Your task to perform on an android device: open app "DuckDuckGo Privacy Browser" (install if not already installed) and enter user name: "cleaving@outlook.com" and password: "freighters" Image 0: 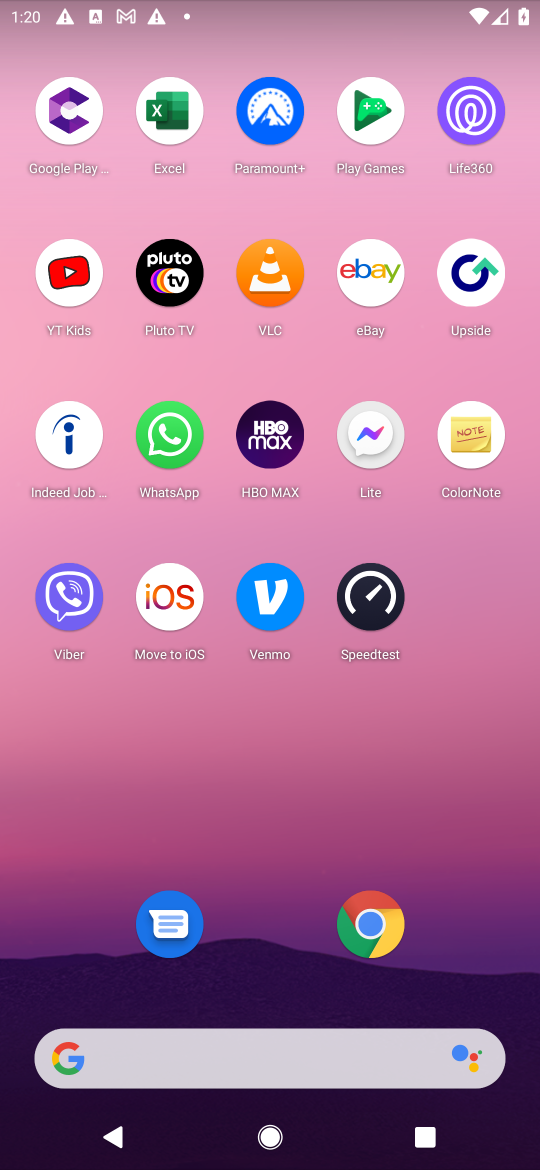
Step 0: press home button
Your task to perform on an android device: open app "DuckDuckGo Privacy Browser" (install if not already installed) and enter user name: "cleaving@outlook.com" and password: "freighters" Image 1: 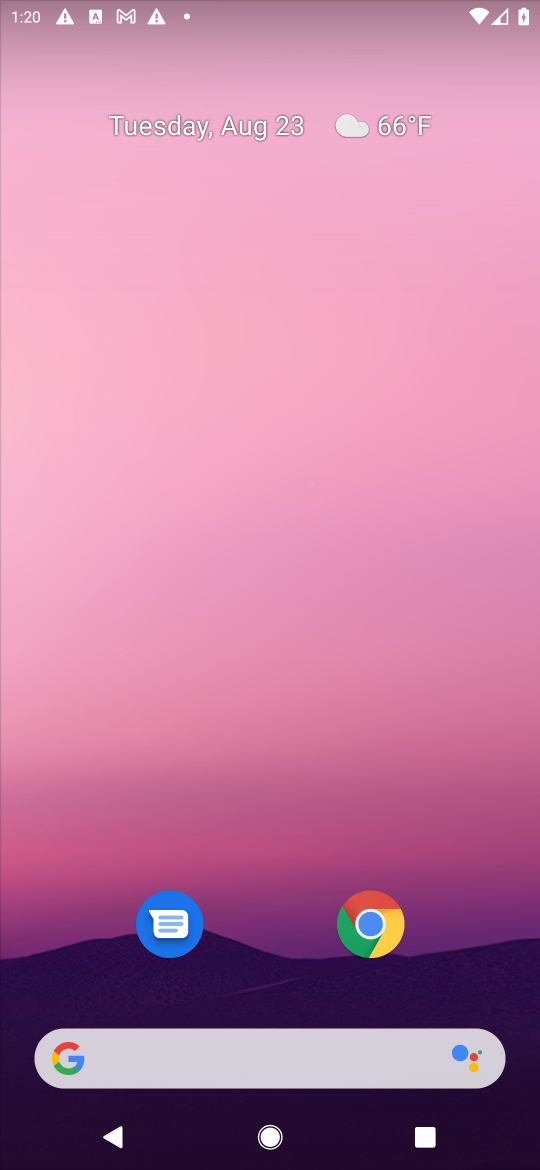
Step 1: drag from (453, 736) to (498, 158)
Your task to perform on an android device: open app "DuckDuckGo Privacy Browser" (install if not already installed) and enter user name: "cleaving@outlook.com" and password: "freighters" Image 2: 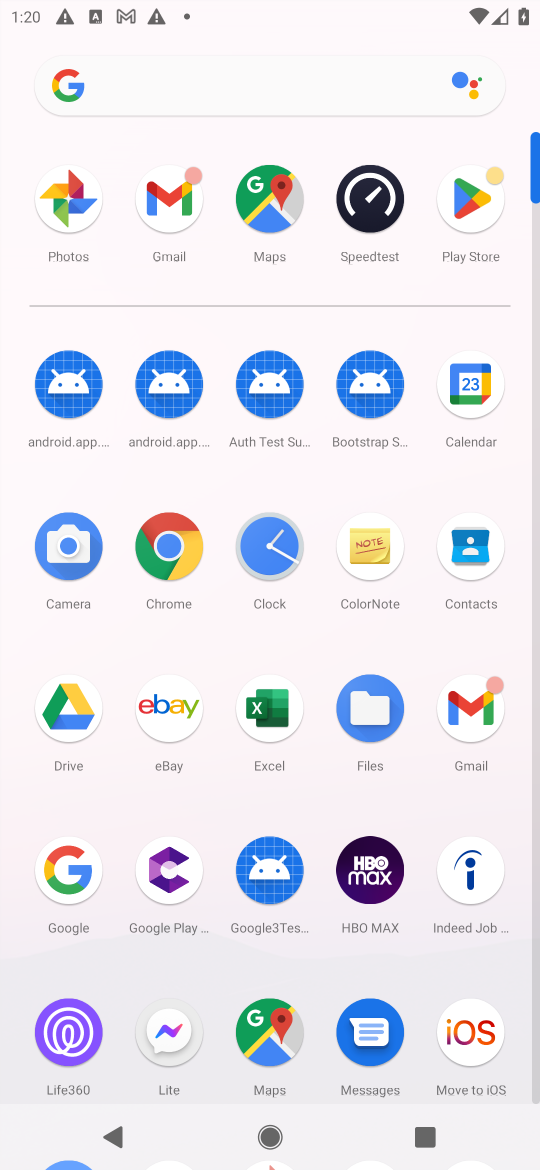
Step 2: click (473, 206)
Your task to perform on an android device: open app "DuckDuckGo Privacy Browser" (install if not already installed) and enter user name: "cleaving@outlook.com" and password: "freighters" Image 3: 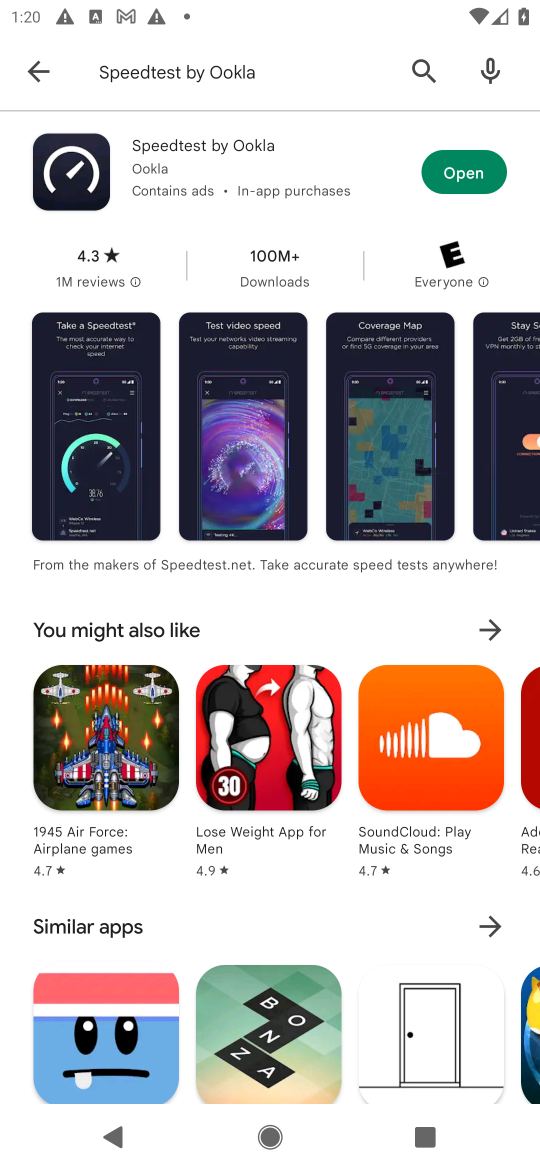
Step 3: press back button
Your task to perform on an android device: open app "DuckDuckGo Privacy Browser" (install if not already installed) and enter user name: "cleaving@outlook.com" and password: "freighters" Image 4: 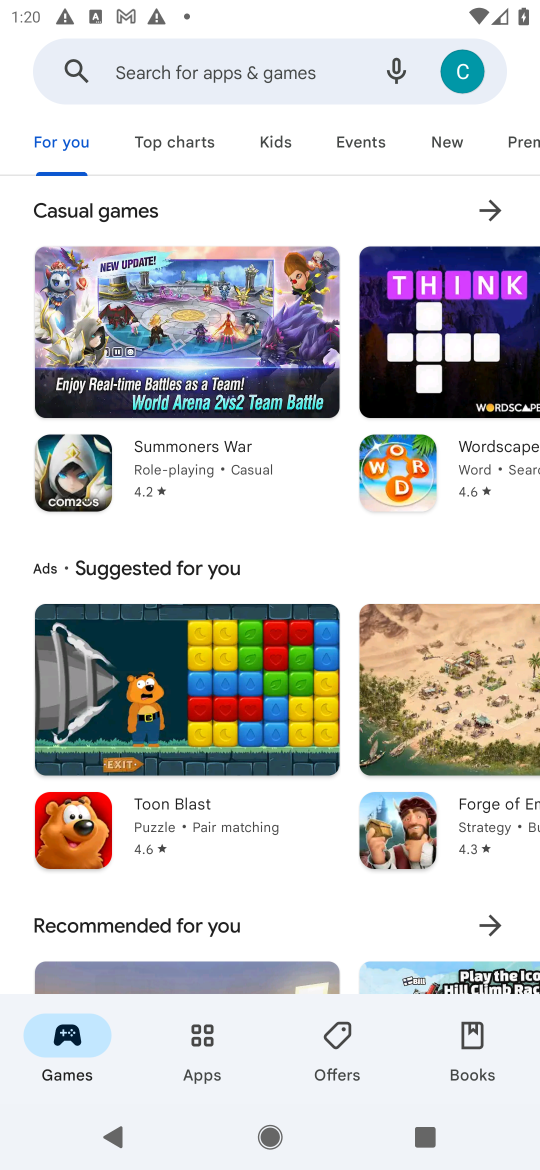
Step 4: click (115, 79)
Your task to perform on an android device: open app "DuckDuckGo Privacy Browser" (install if not already installed) and enter user name: "cleaving@outlook.com" and password: "freighters" Image 5: 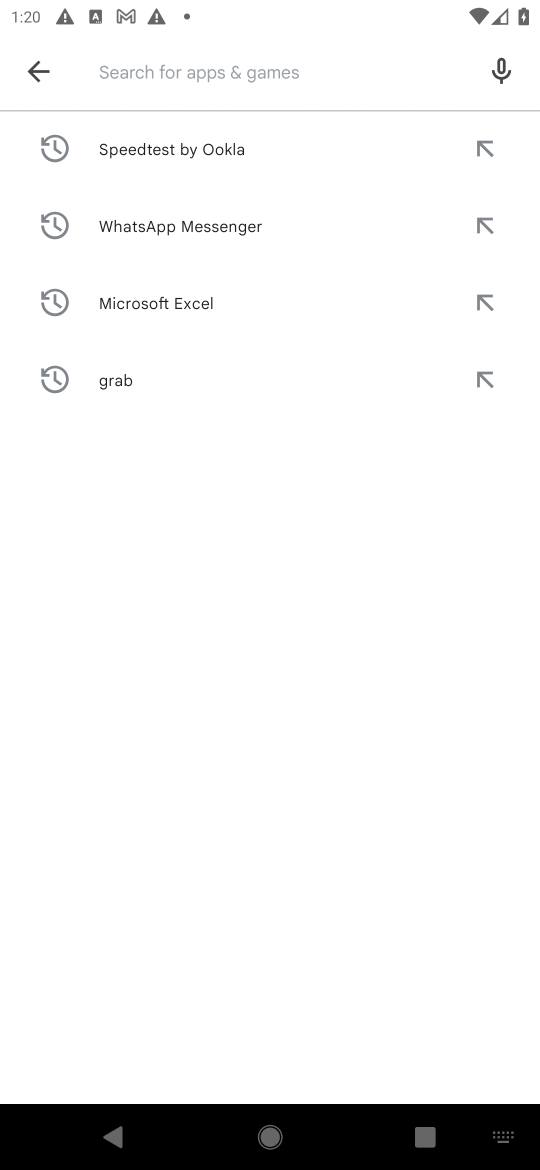
Step 5: type "DuckDuckGo Privacy Browser"
Your task to perform on an android device: open app "DuckDuckGo Privacy Browser" (install if not already installed) and enter user name: "cleaving@outlook.com" and password: "freighters" Image 6: 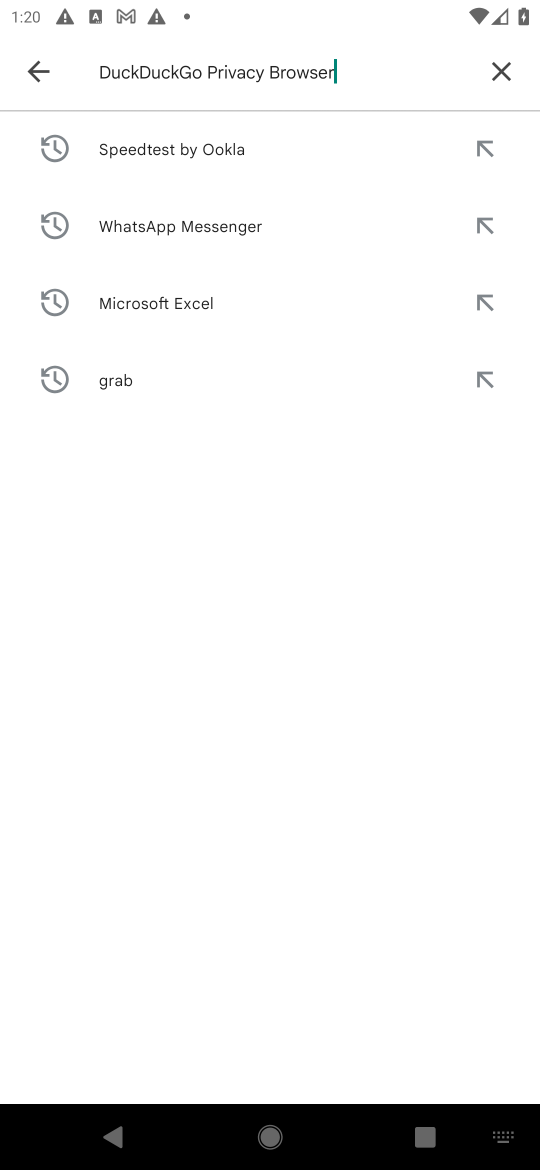
Step 6: press enter
Your task to perform on an android device: open app "DuckDuckGo Privacy Browser" (install if not already installed) and enter user name: "cleaving@outlook.com" and password: "freighters" Image 7: 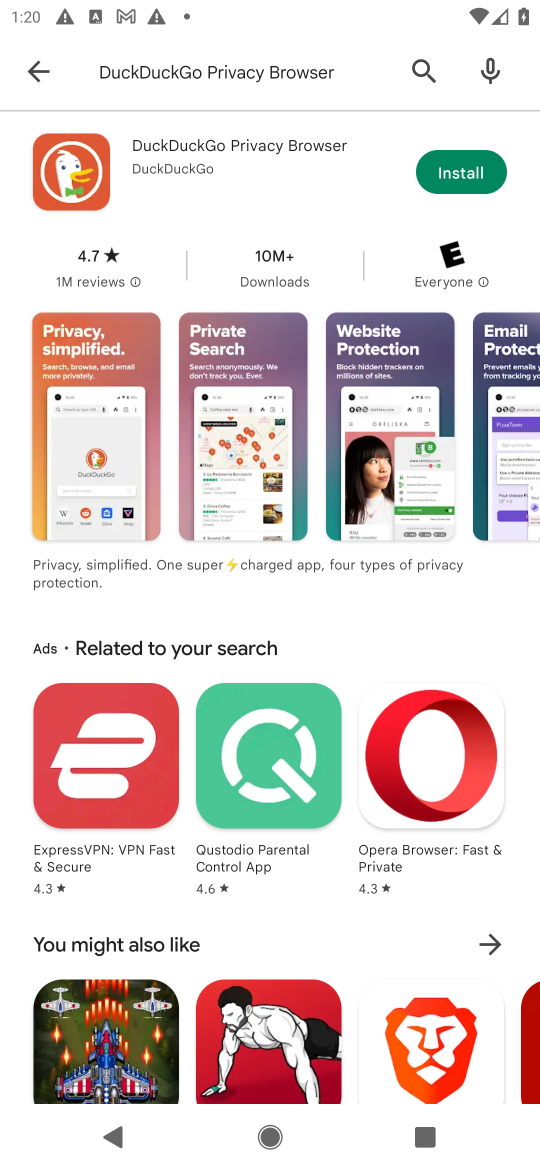
Step 7: click (447, 173)
Your task to perform on an android device: open app "DuckDuckGo Privacy Browser" (install if not already installed) and enter user name: "cleaving@outlook.com" and password: "freighters" Image 8: 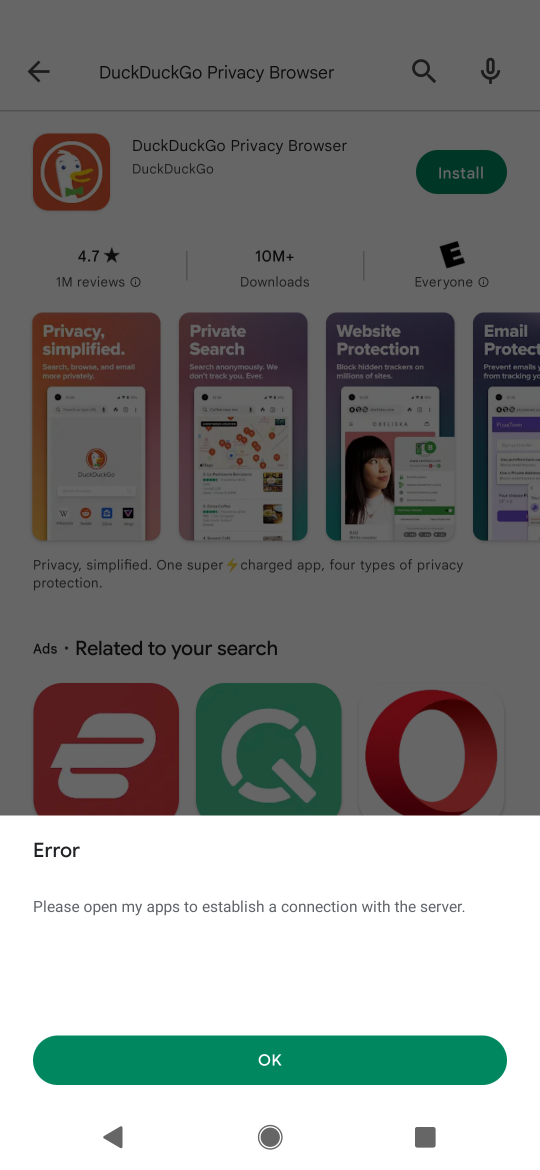
Step 8: task complete